Your task to perform on an android device: Do I have any events tomorrow? Image 0: 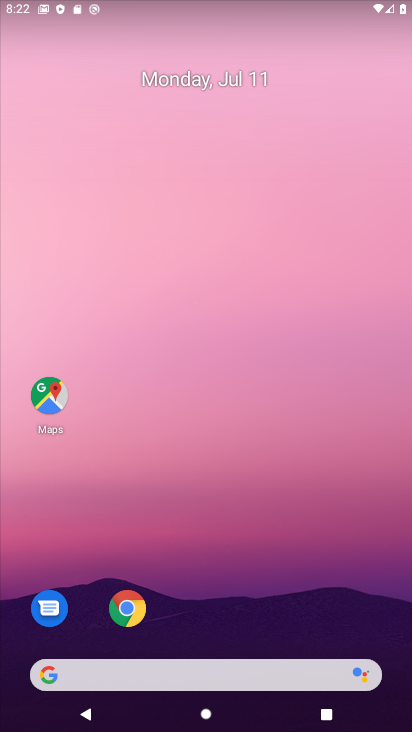
Step 0: drag from (215, 608) to (181, 99)
Your task to perform on an android device: Do I have any events tomorrow? Image 1: 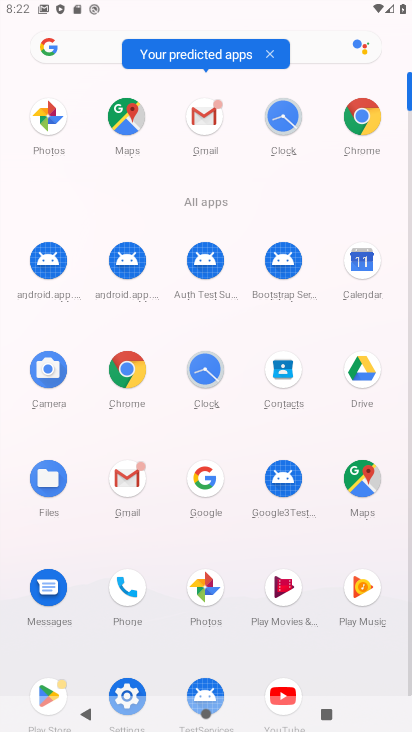
Step 1: click (352, 263)
Your task to perform on an android device: Do I have any events tomorrow? Image 2: 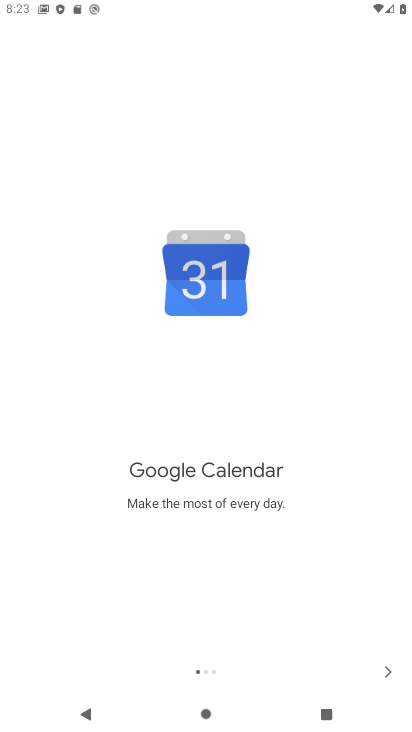
Step 2: click (386, 668)
Your task to perform on an android device: Do I have any events tomorrow? Image 3: 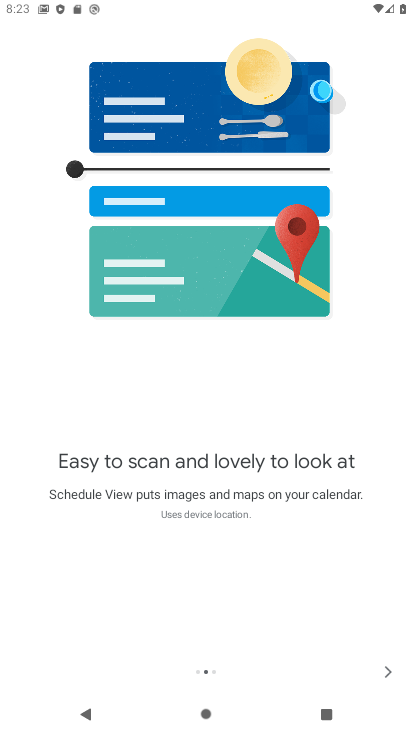
Step 3: click (389, 670)
Your task to perform on an android device: Do I have any events tomorrow? Image 4: 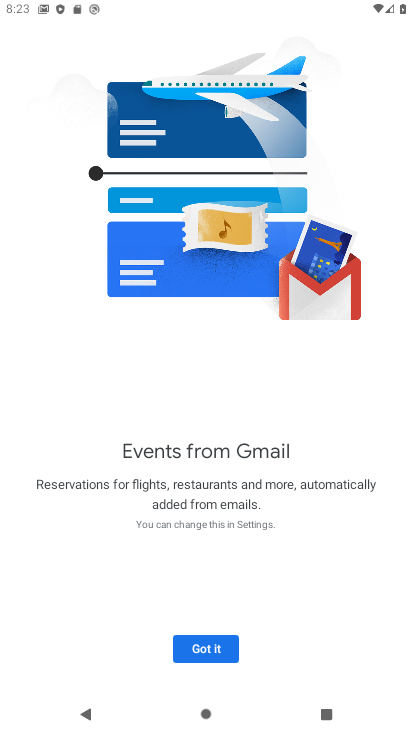
Step 4: click (389, 670)
Your task to perform on an android device: Do I have any events tomorrow? Image 5: 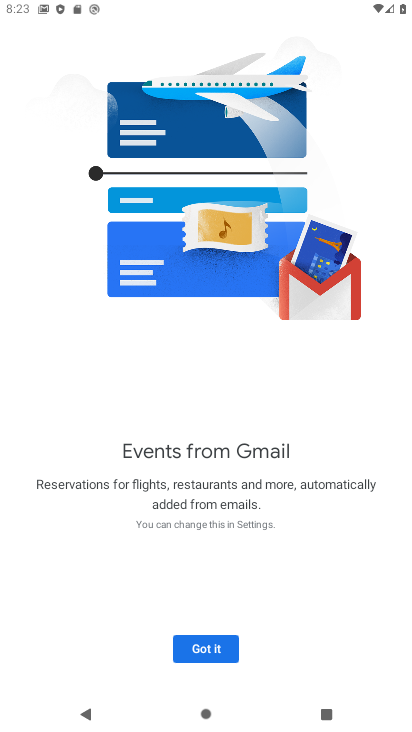
Step 5: click (185, 638)
Your task to perform on an android device: Do I have any events tomorrow? Image 6: 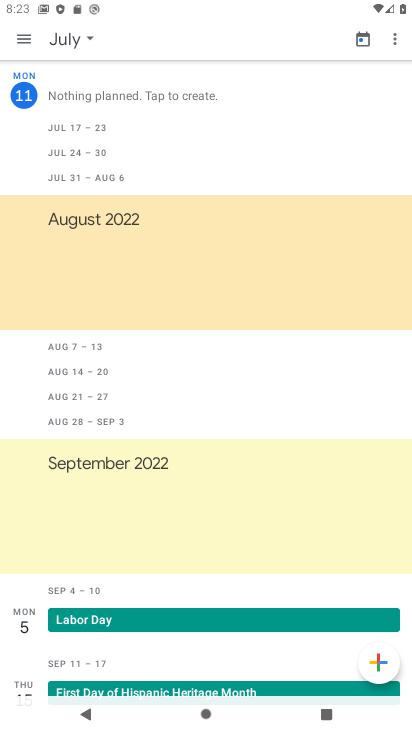
Step 6: click (31, 44)
Your task to perform on an android device: Do I have any events tomorrow? Image 7: 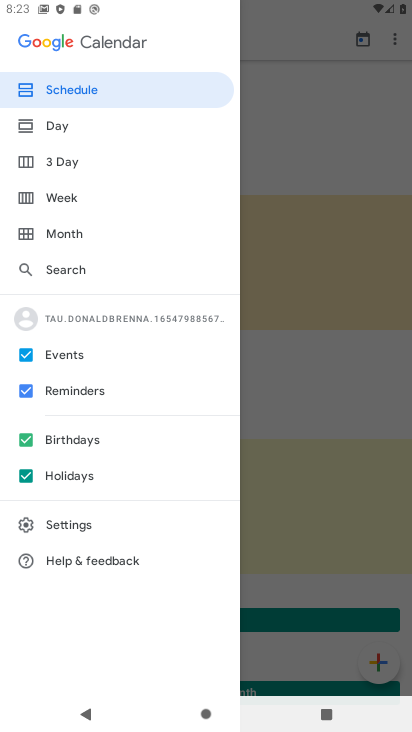
Step 7: click (60, 122)
Your task to perform on an android device: Do I have any events tomorrow? Image 8: 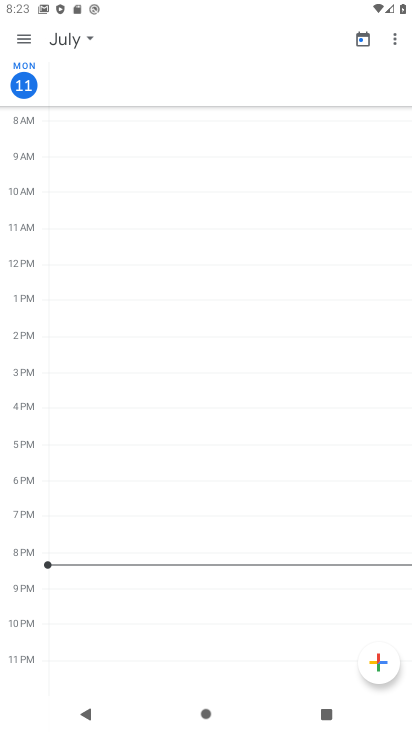
Step 8: click (71, 37)
Your task to perform on an android device: Do I have any events tomorrow? Image 9: 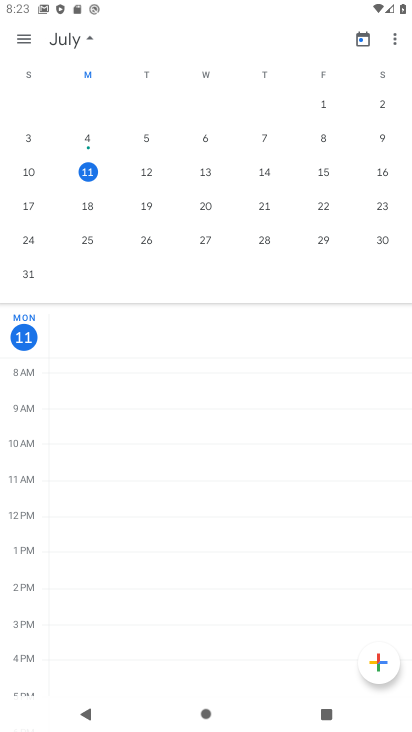
Step 9: click (146, 168)
Your task to perform on an android device: Do I have any events tomorrow? Image 10: 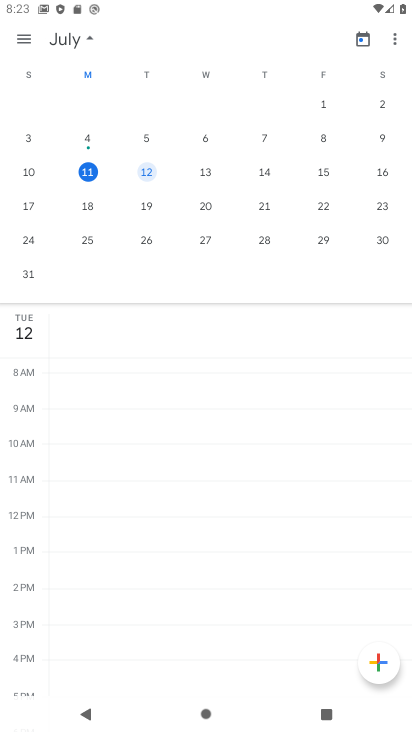
Step 10: task complete